Your task to perform on an android device: toggle wifi Image 0: 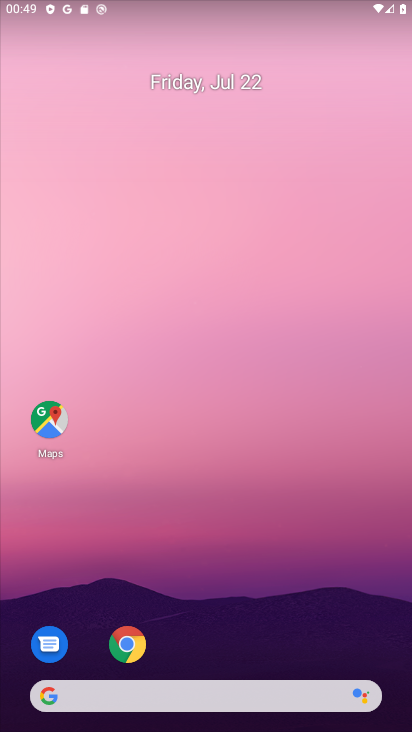
Step 0: drag from (180, 719) to (135, 205)
Your task to perform on an android device: toggle wifi Image 1: 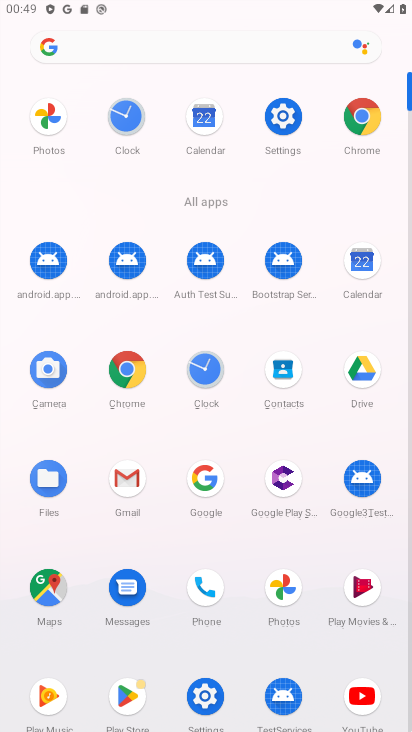
Step 1: click (271, 117)
Your task to perform on an android device: toggle wifi Image 2: 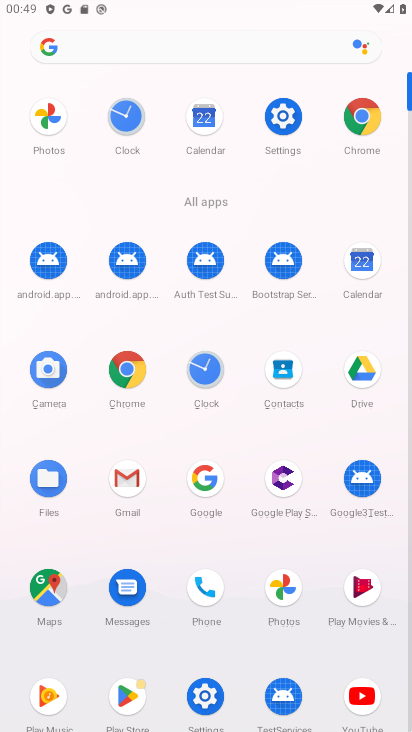
Step 2: click (271, 117)
Your task to perform on an android device: toggle wifi Image 3: 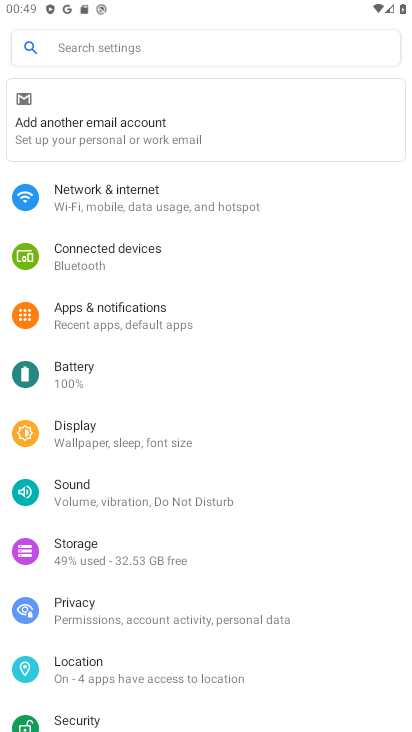
Step 3: click (184, 201)
Your task to perform on an android device: toggle wifi Image 4: 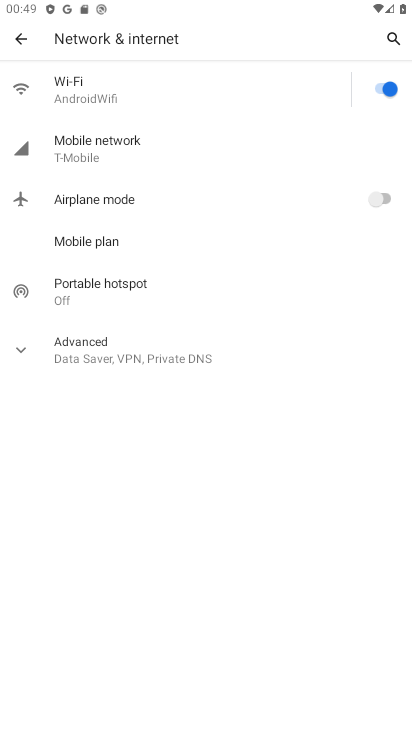
Step 4: click (383, 87)
Your task to perform on an android device: toggle wifi Image 5: 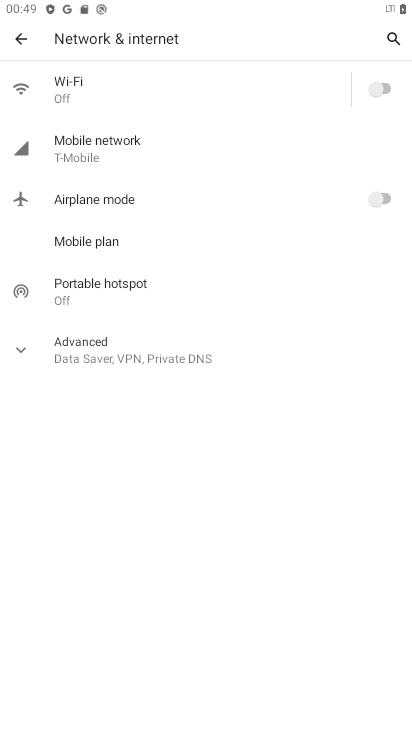
Step 5: task complete